Your task to perform on an android device: Open Google Chrome and open the bookmarks view Image 0: 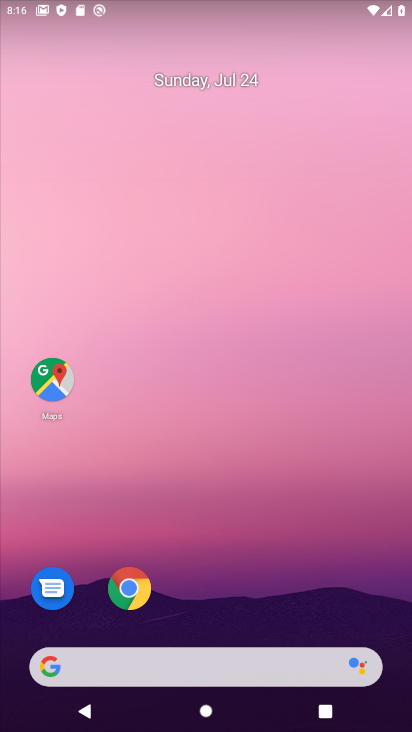
Step 0: drag from (295, 510) to (179, 10)
Your task to perform on an android device: Open Google Chrome and open the bookmarks view Image 1: 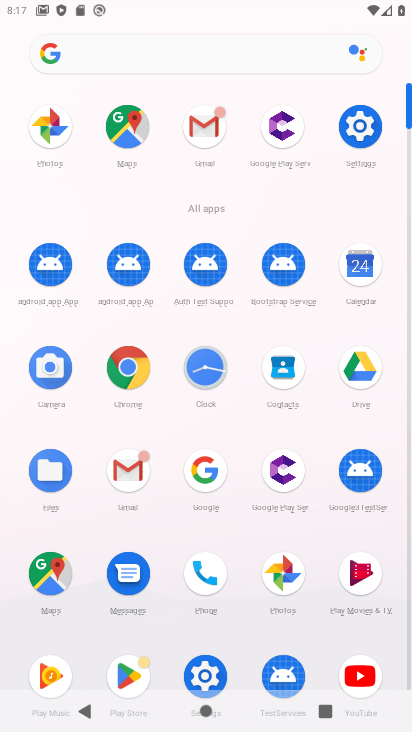
Step 1: click (130, 357)
Your task to perform on an android device: Open Google Chrome and open the bookmarks view Image 2: 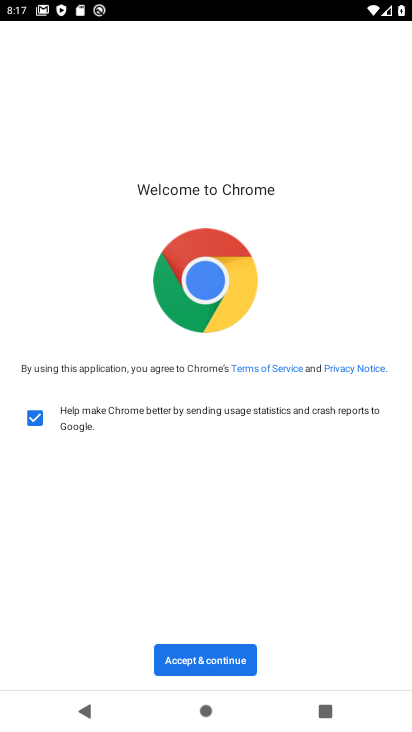
Step 2: click (197, 652)
Your task to perform on an android device: Open Google Chrome and open the bookmarks view Image 3: 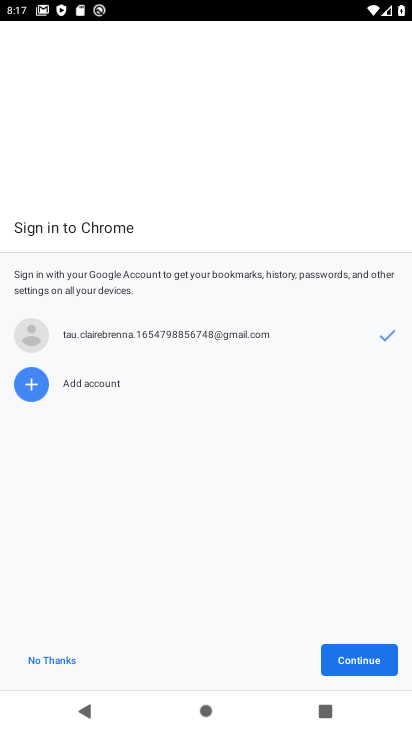
Step 3: click (333, 656)
Your task to perform on an android device: Open Google Chrome and open the bookmarks view Image 4: 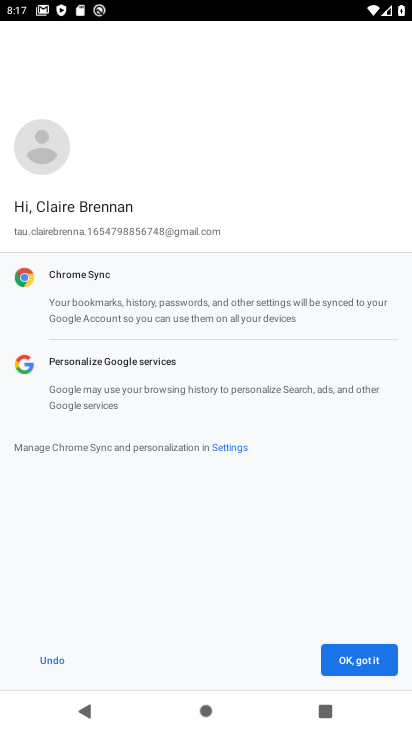
Step 4: click (351, 655)
Your task to perform on an android device: Open Google Chrome and open the bookmarks view Image 5: 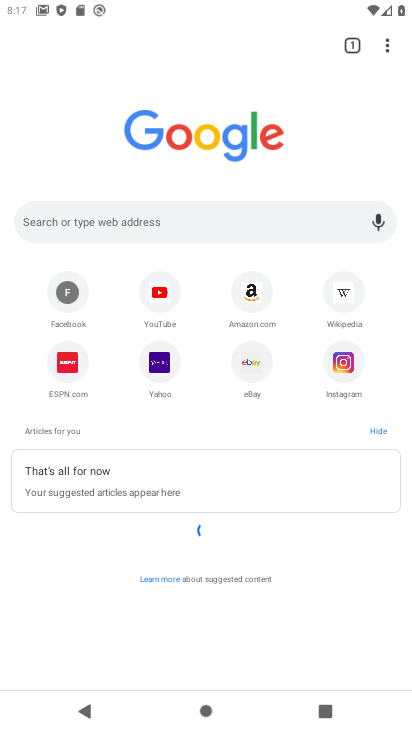
Step 5: click (385, 47)
Your task to perform on an android device: Open Google Chrome and open the bookmarks view Image 6: 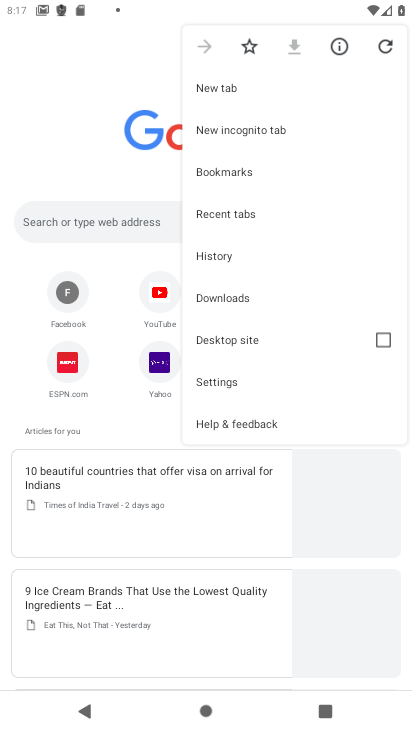
Step 6: click (216, 173)
Your task to perform on an android device: Open Google Chrome and open the bookmarks view Image 7: 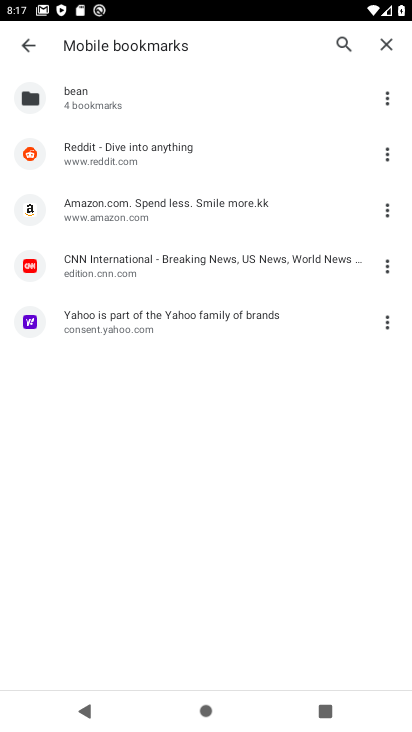
Step 7: task complete